Your task to perform on an android device: Open the calendar app, open the side menu, and click the "Day" option Image 0: 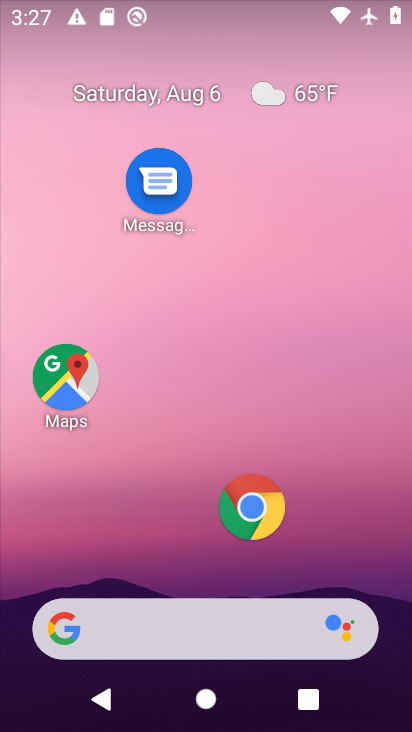
Step 0: drag from (163, 544) to (229, 85)
Your task to perform on an android device: Open the calendar app, open the side menu, and click the "Day" option Image 1: 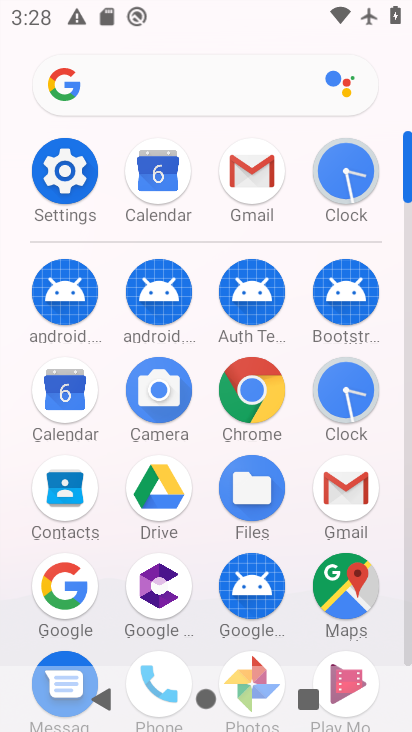
Step 1: click (70, 405)
Your task to perform on an android device: Open the calendar app, open the side menu, and click the "Day" option Image 2: 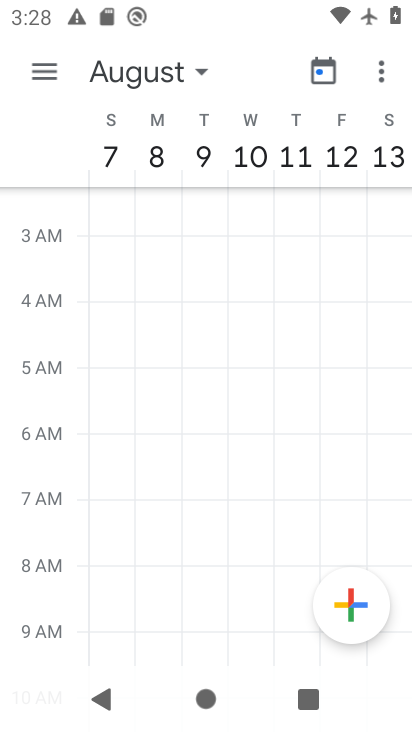
Step 2: click (30, 70)
Your task to perform on an android device: Open the calendar app, open the side menu, and click the "Day" option Image 3: 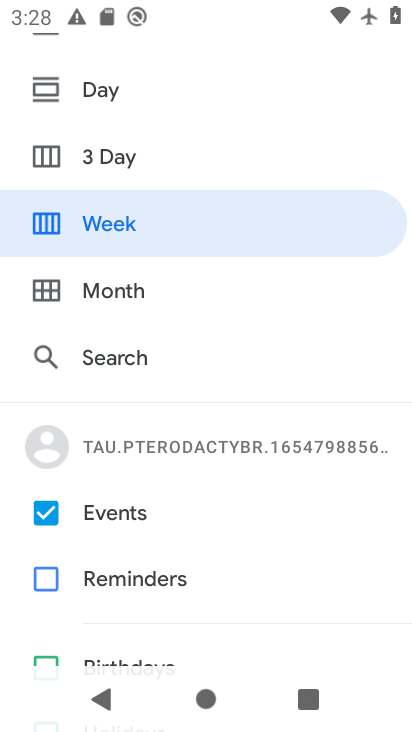
Step 3: click (109, 102)
Your task to perform on an android device: Open the calendar app, open the side menu, and click the "Day" option Image 4: 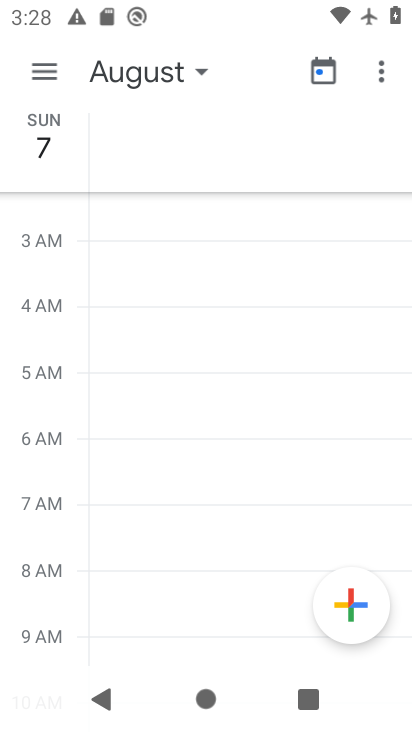
Step 4: task complete